Your task to perform on an android device: Open maps Image 0: 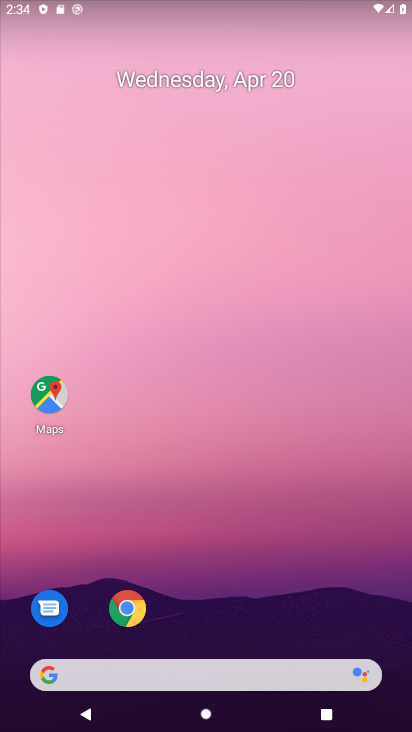
Step 0: click (47, 397)
Your task to perform on an android device: Open maps Image 1: 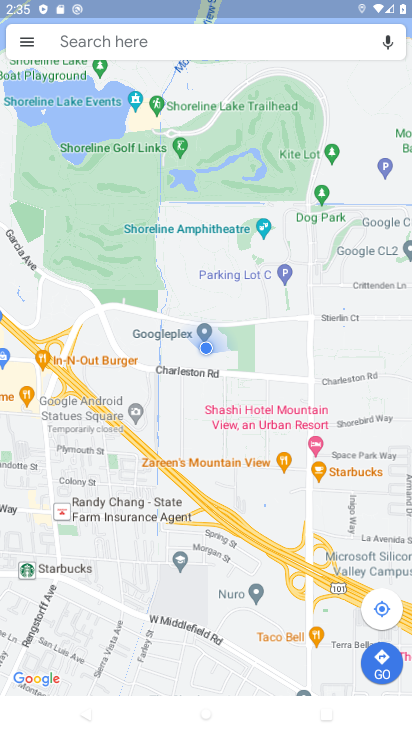
Step 1: task complete